Your task to perform on an android device: turn on sleep mode Image 0: 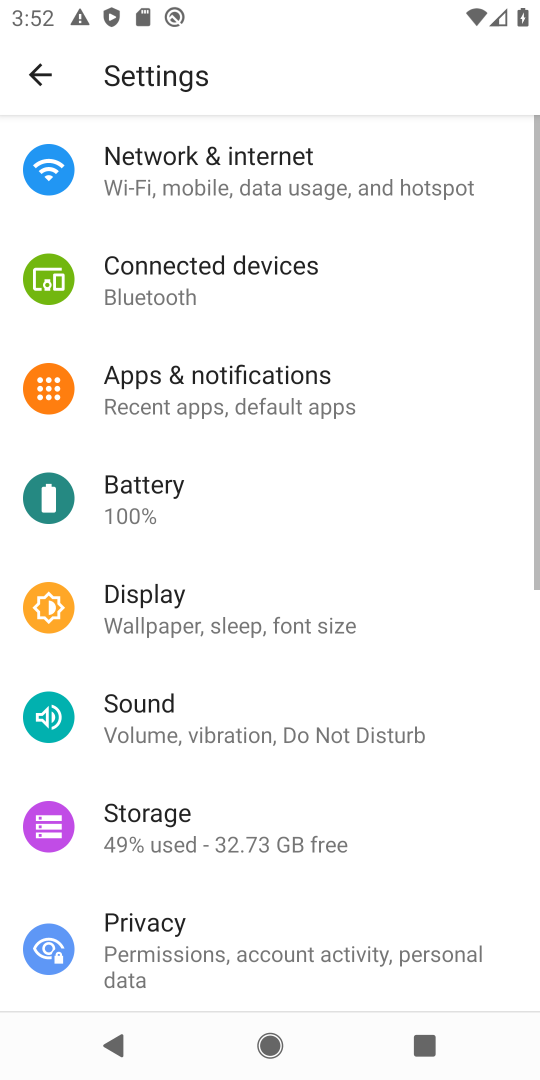
Step 0: click (236, 618)
Your task to perform on an android device: turn on sleep mode Image 1: 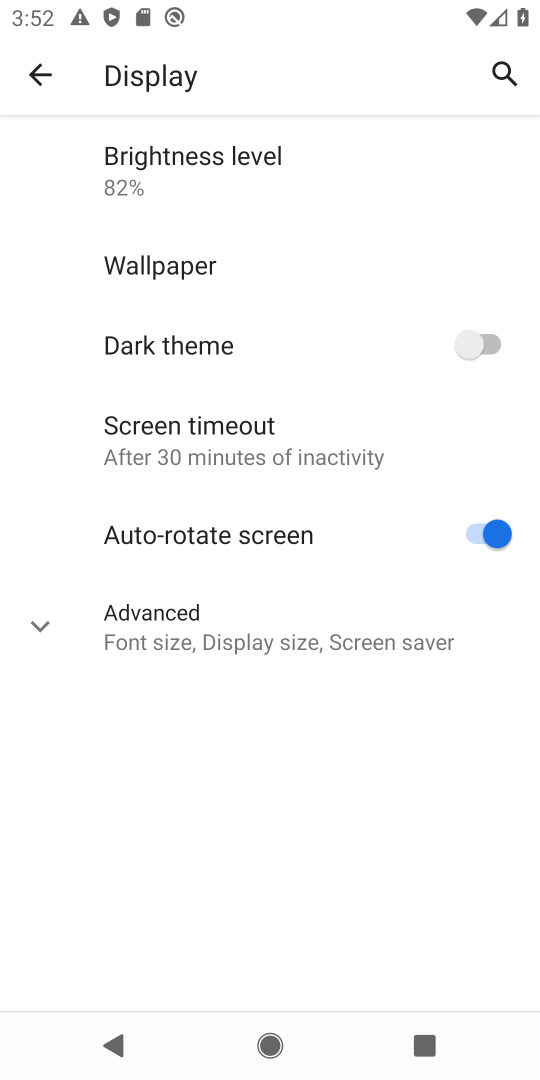
Step 1: task complete